Your task to perform on an android device: change notifications settings Image 0: 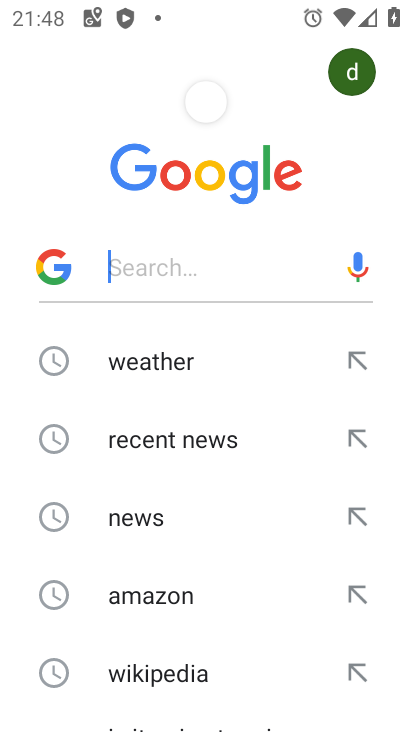
Step 0: drag from (331, 583) to (336, 240)
Your task to perform on an android device: change notifications settings Image 1: 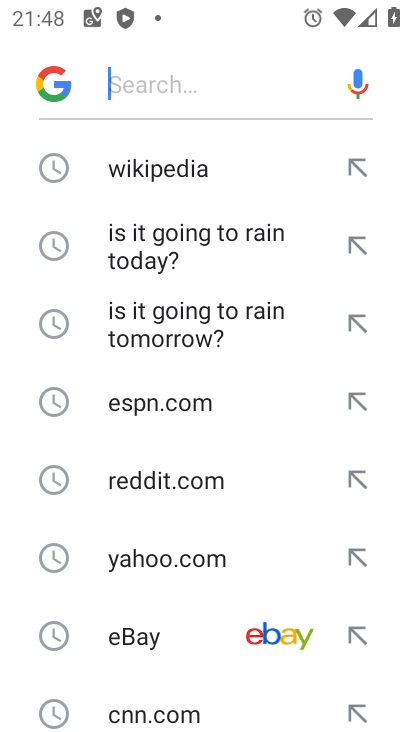
Step 1: press home button
Your task to perform on an android device: change notifications settings Image 2: 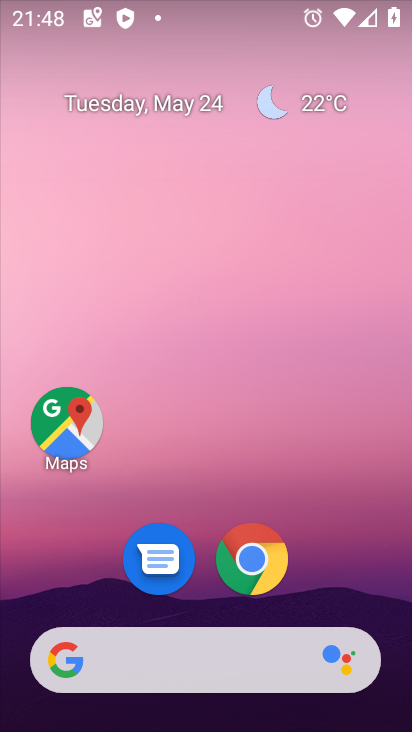
Step 2: drag from (351, 580) to (255, 129)
Your task to perform on an android device: change notifications settings Image 3: 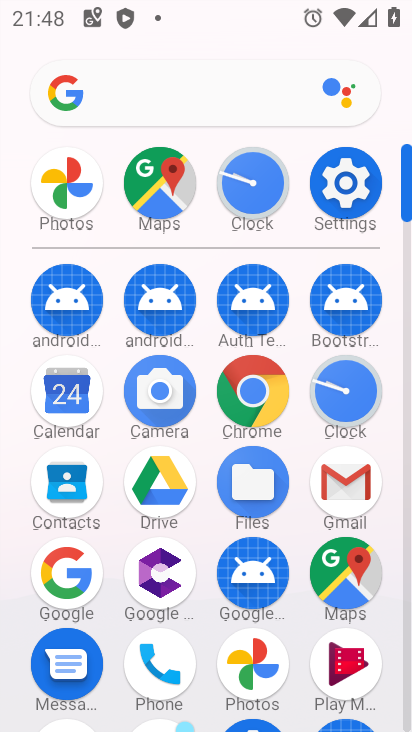
Step 3: click (352, 187)
Your task to perform on an android device: change notifications settings Image 4: 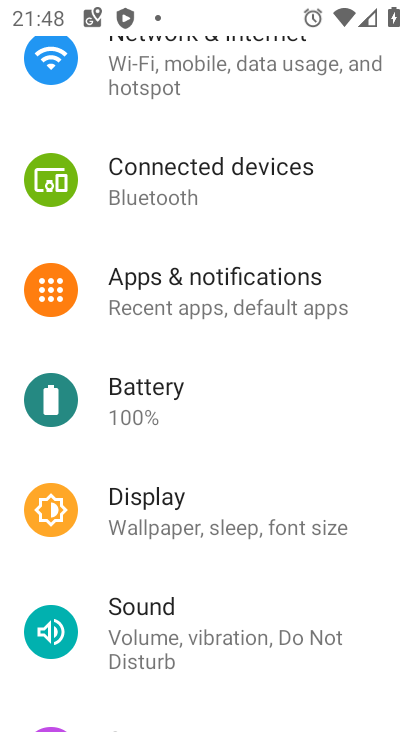
Step 4: drag from (196, 110) to (216, 464)
Your task to perform on an android device: change notifications settings Image 5: 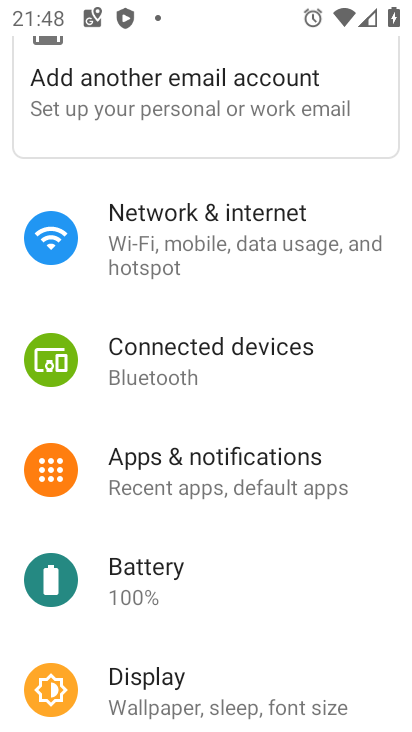
Step 5: click (215, 482)
Your task to perform on an android device: change notifications settings Image 6: 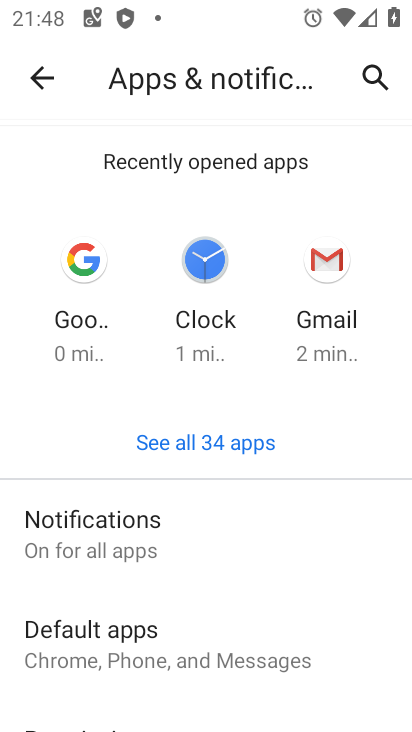
Step 6: click (122, 550)
Your task to perform on an android device: change notifications settings Image 7: 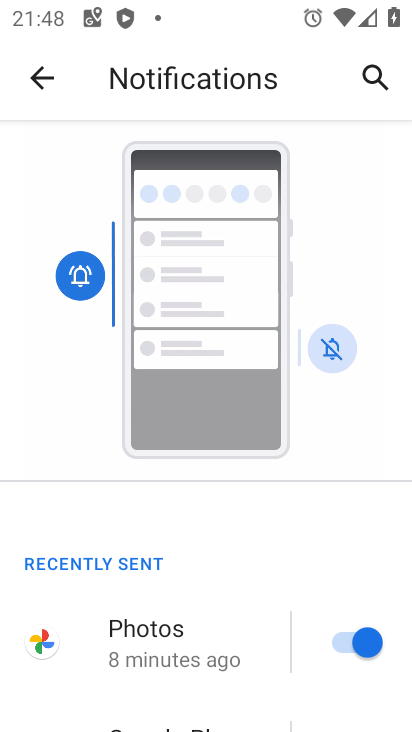
Step 7: task complete